Your task to perform on an android device: Go to calendar. Show me events next week Image 0: 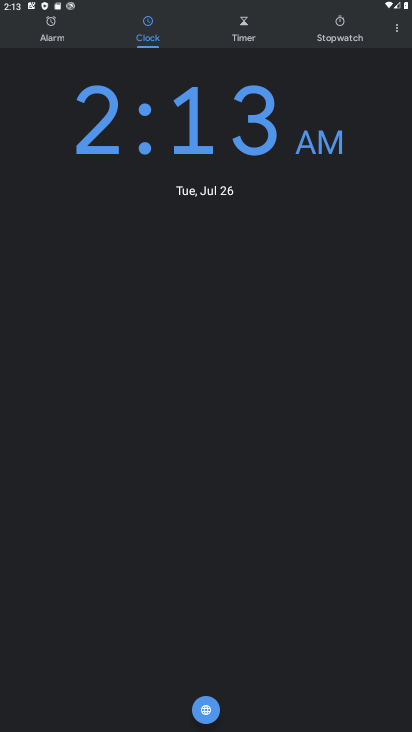
Step 0: press home button
Your task to perform on an android device: Go to calendar. Show me events next week Image 1: 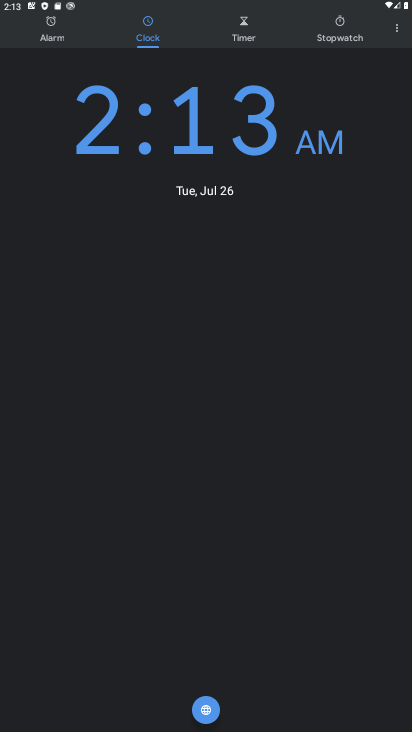
Step 1: press home button
Your task to perform on an android device: Go to calendar. Show me events next week Image 2: 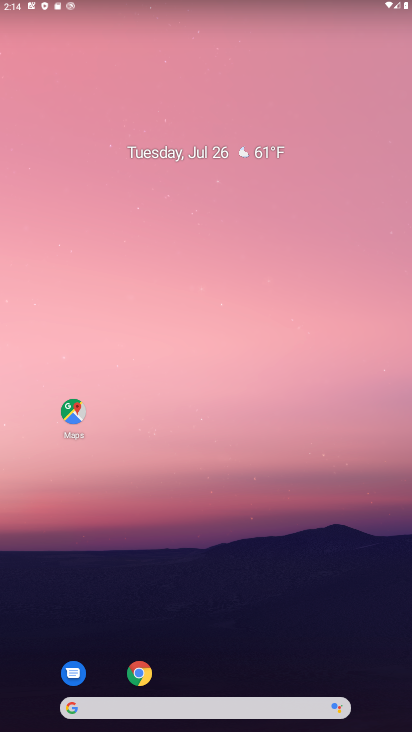
Step 2: drag from (210, 641) to (210, 297)
Your task to perform on an android device: Go to calendar. Show me events next week Image 3: 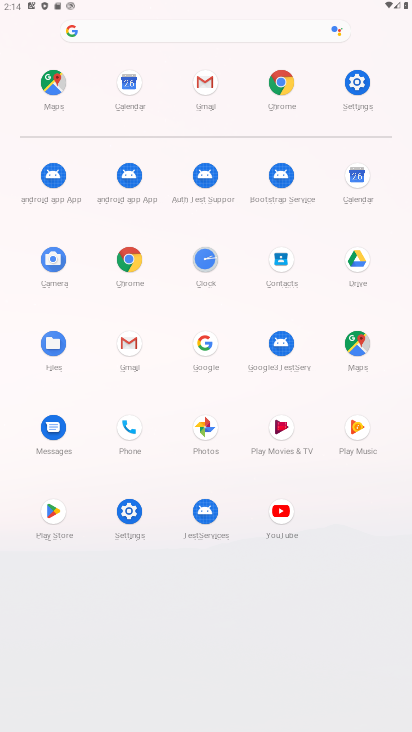
Step 3: click (352, 176)
Your task to perform on an android device: Go to calendar. Show me events next week Image 4: 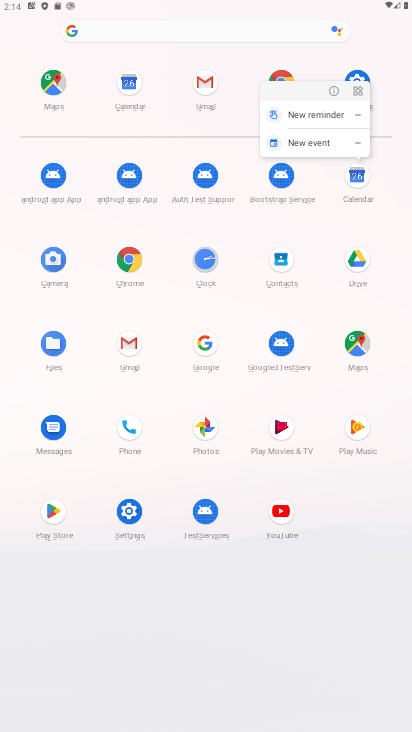
Step 4: click (335, 87)
Your task to perform on an android device: Go to calendar. Show me events next week Image 5: 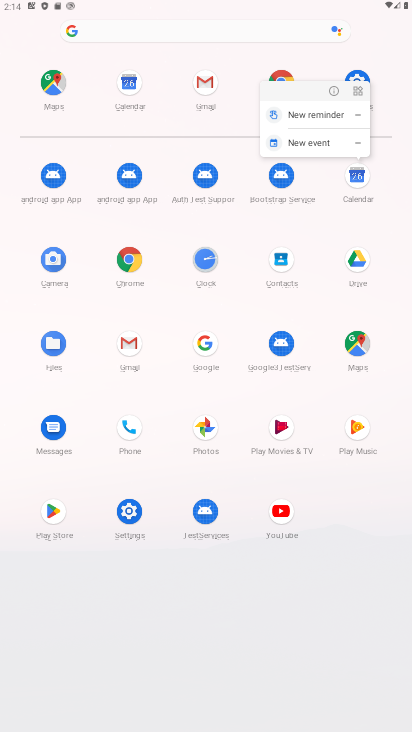
Step 5: click (335, 87)
Your task to perform on an android device: Go to calendar. Show me events next week Image 6: 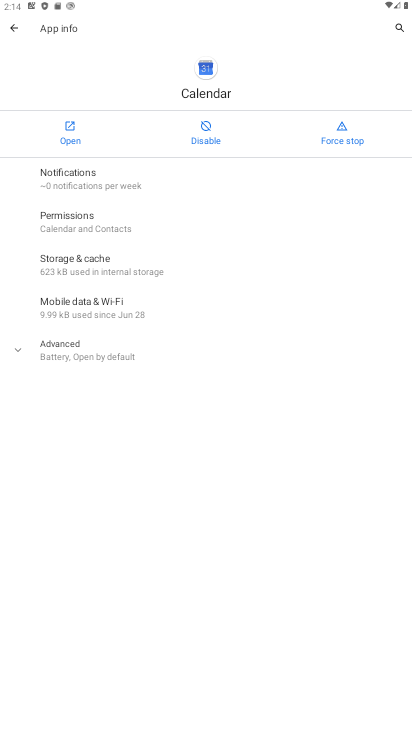
Step 6: click (81, 129)
Your task to perform on an android device: Go to calendar. Show me events next week Image 7: 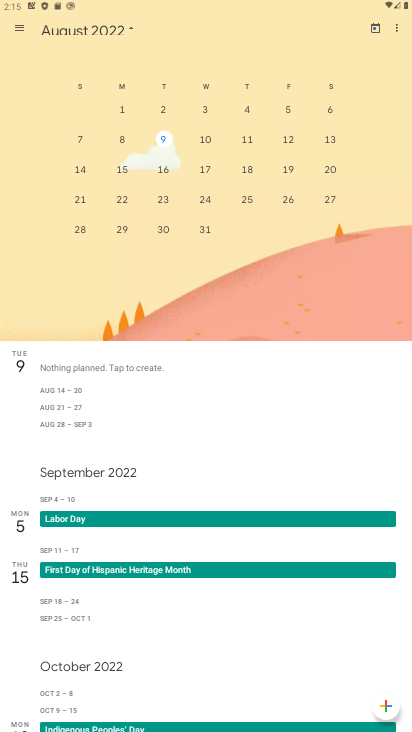
Step 7: click (368, 24)
Your task to perform on an android device: Go to calendar. Show me events next week Image 8: 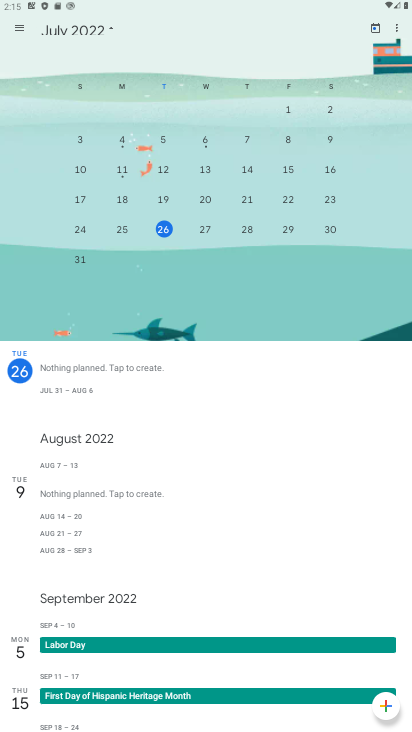
Step 8: click (78, 256)
Your task to perform on an android device: Go to calendar. Show me events next week Image 9: 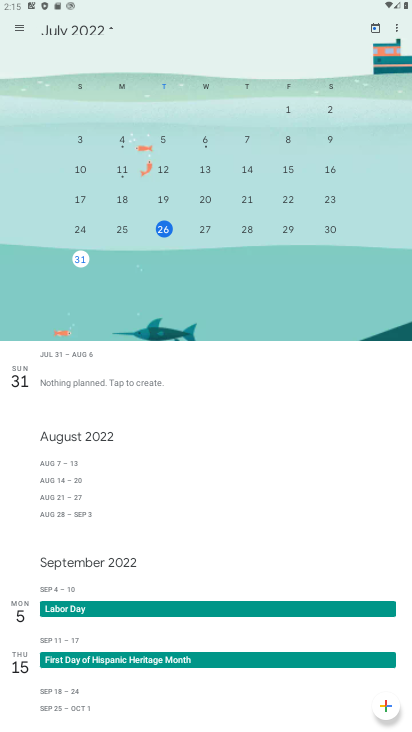
Step 9: task complete